Your task to perform on an android device: open app "Clock" Image 0: 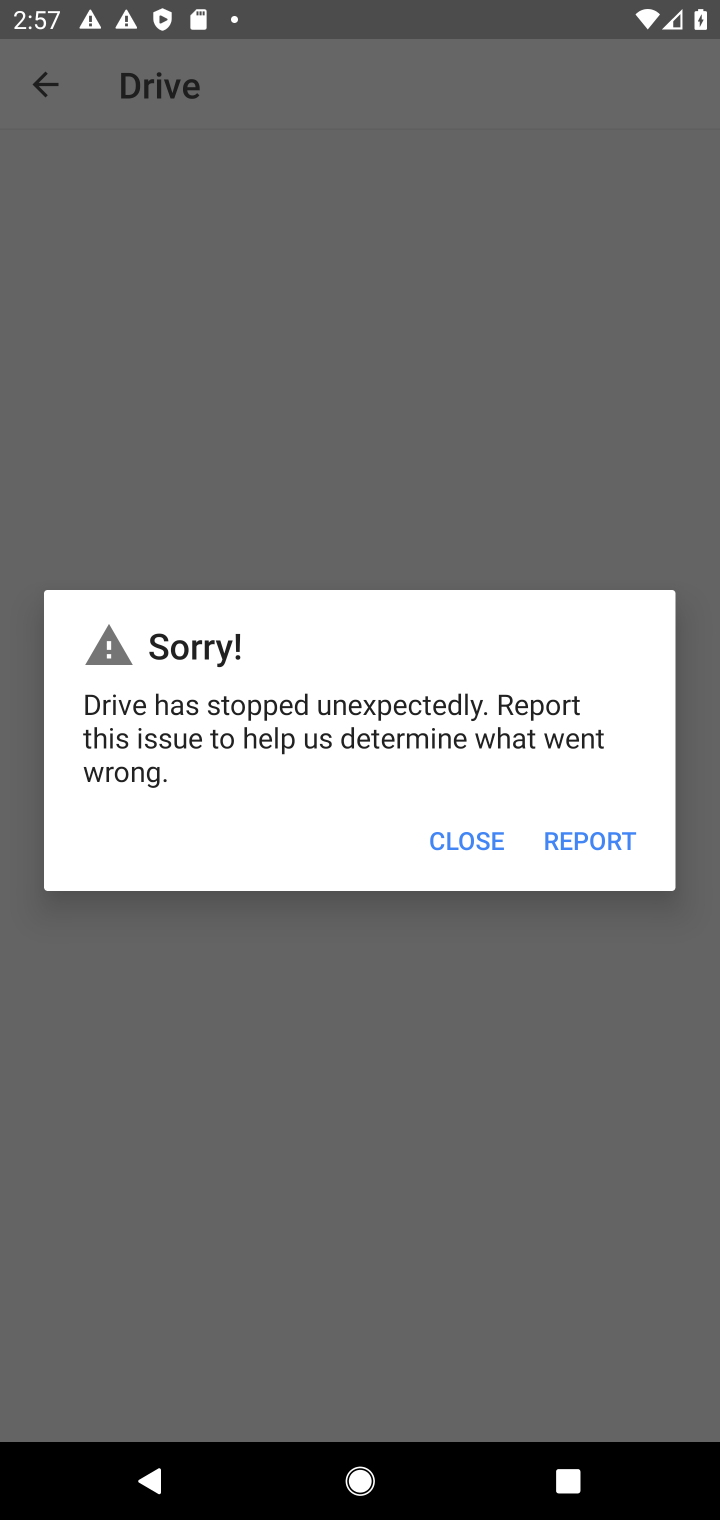
Step 0: press home button
Your task to perform on an android device: open app "Clock" Image 1: 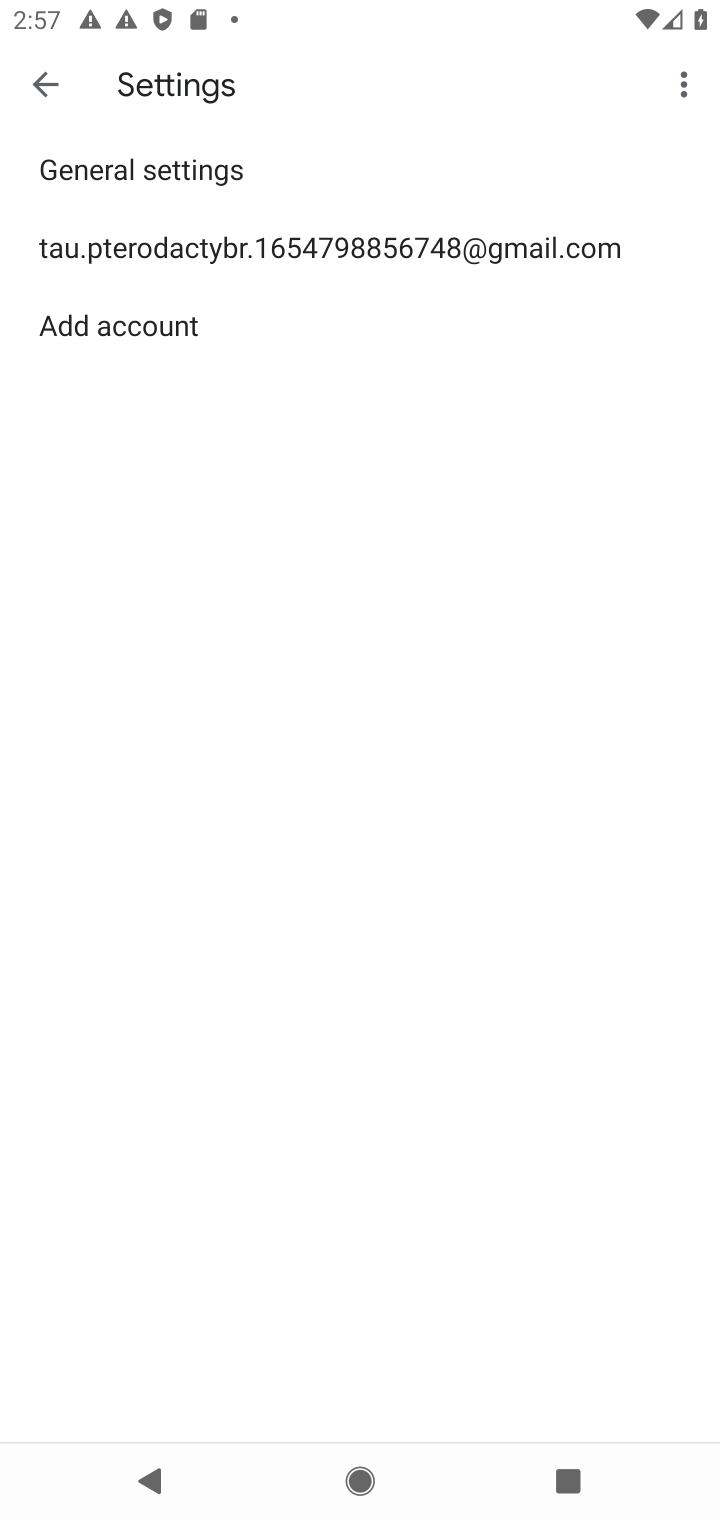
Step 1: press home button
Your task to perform on an android device: open app "Clock" Image 2: 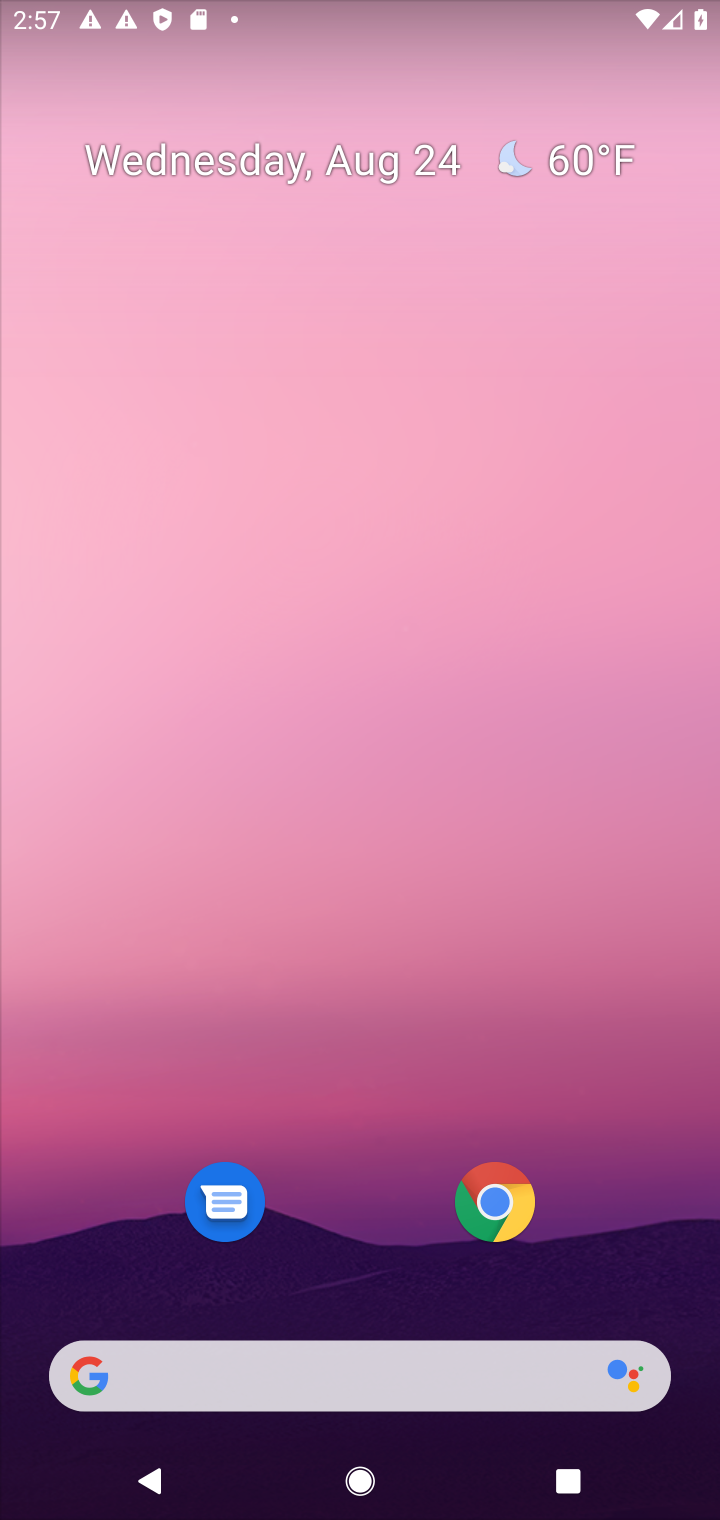
Step 2: press home button
Your task to perform on an android device: open app "Clock" Image 3: 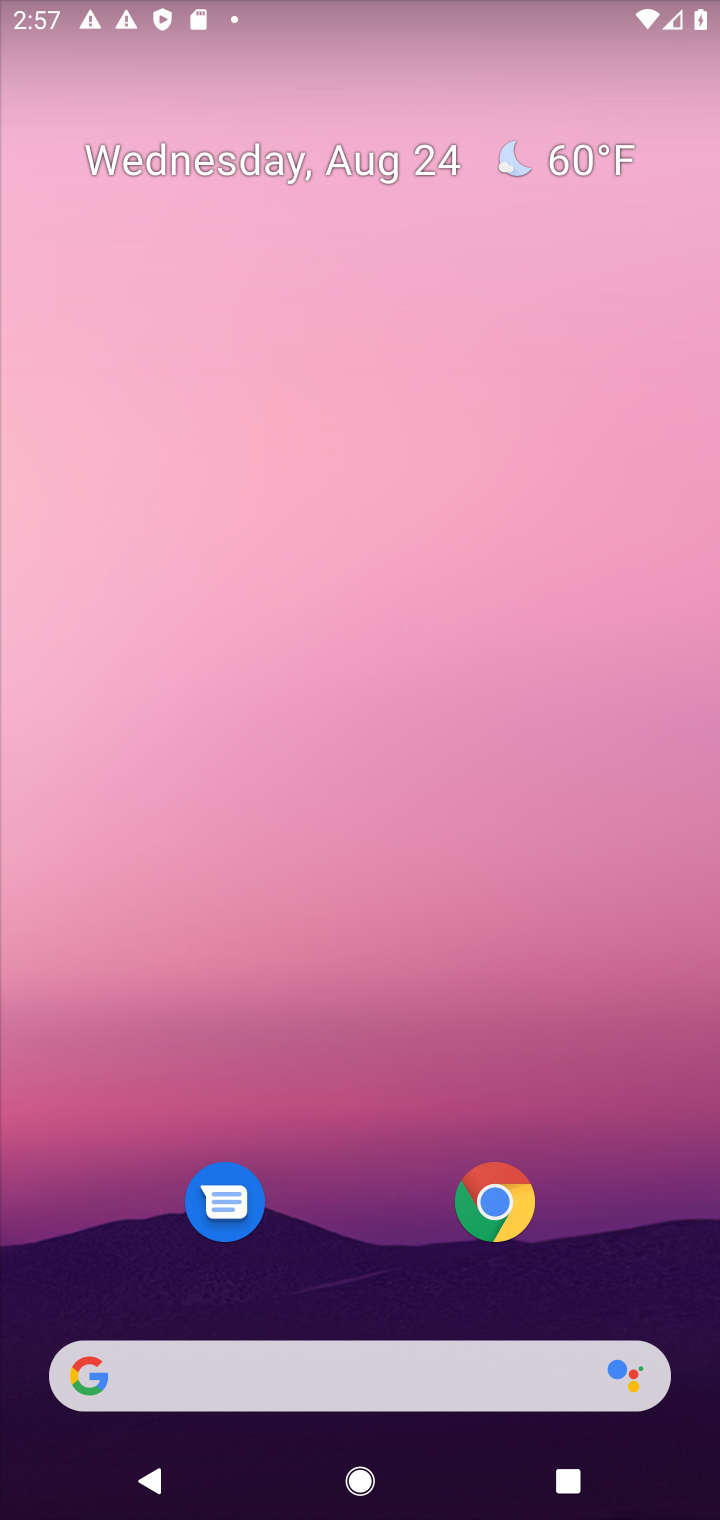
Step 3: drag from (342, 1376) to (542, 410)
Your task to perform on an android device: open app "Clock" Image 4: 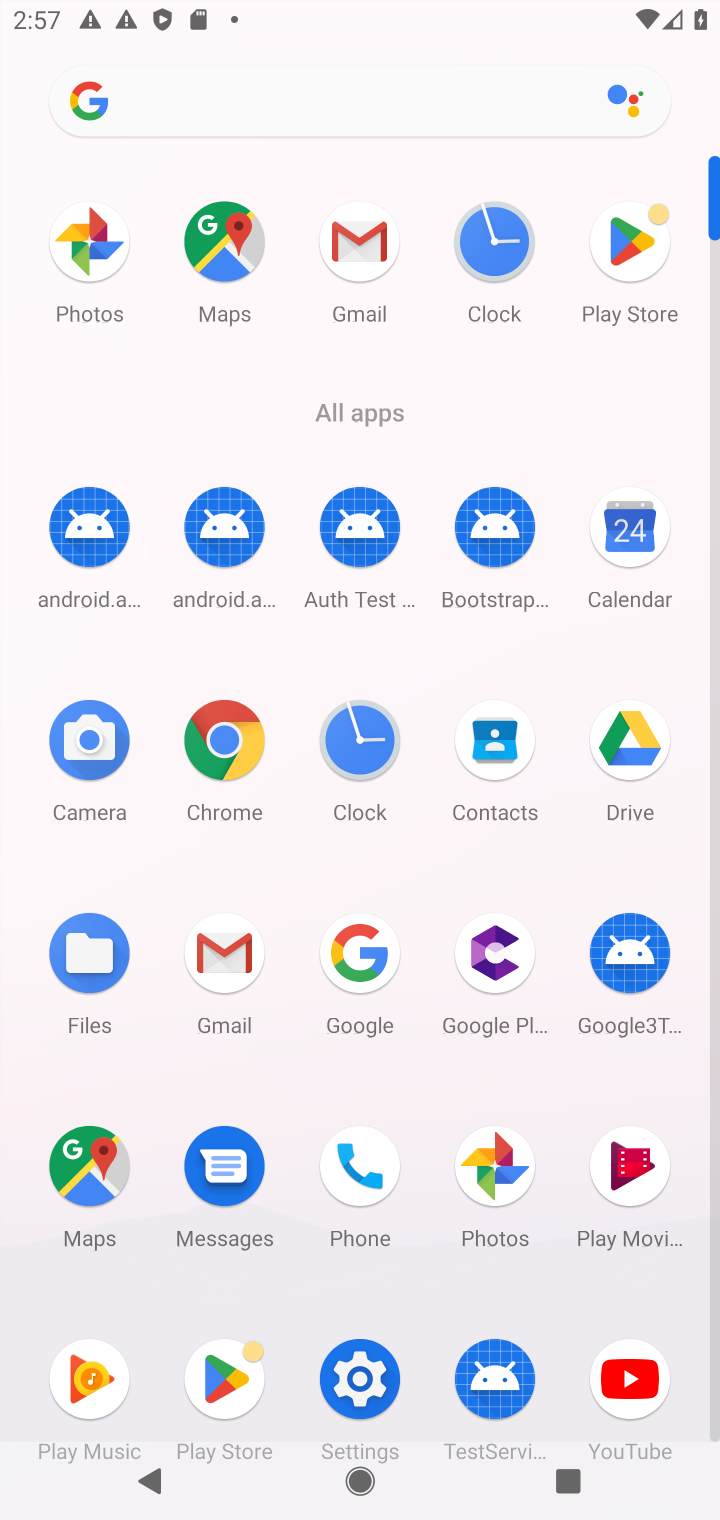
Step 4: click (223, 1371)
Your task to perform on an android device: open app "Clock" Image 5: 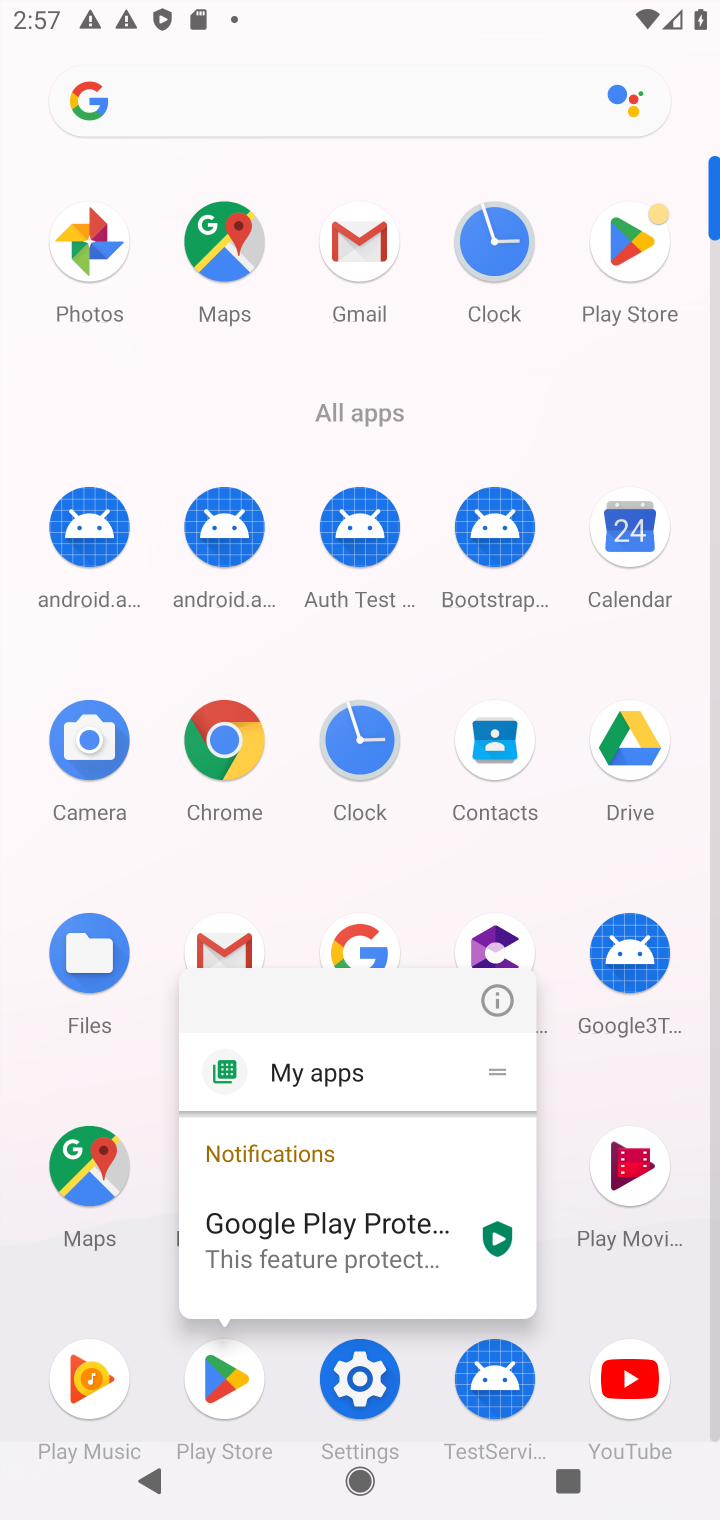
Step 5: click (223, 1371)
Your task to perform on an android device: open app "Clock" Image 6: 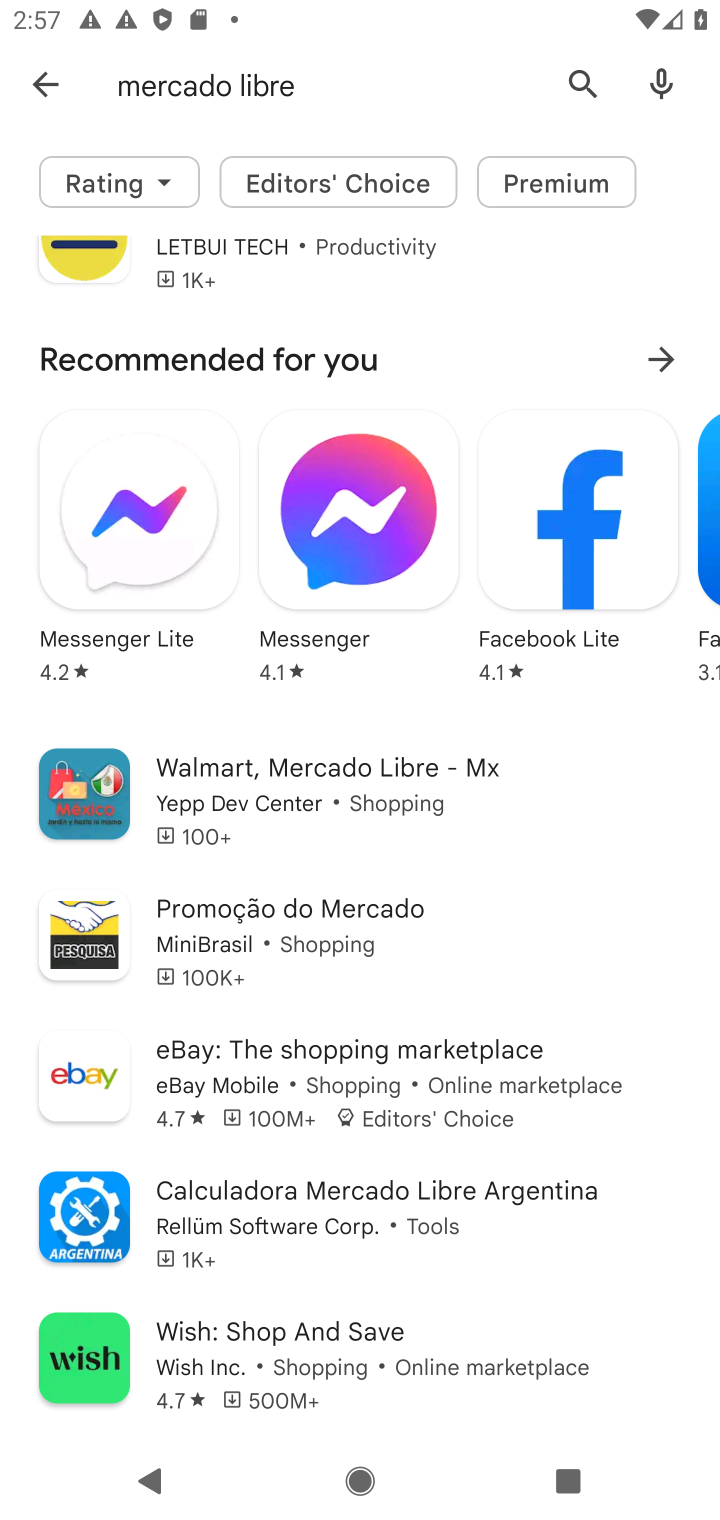
Step 6: click (581, 79)
Your task to perform on an android device: open app "Clock" Image 7: 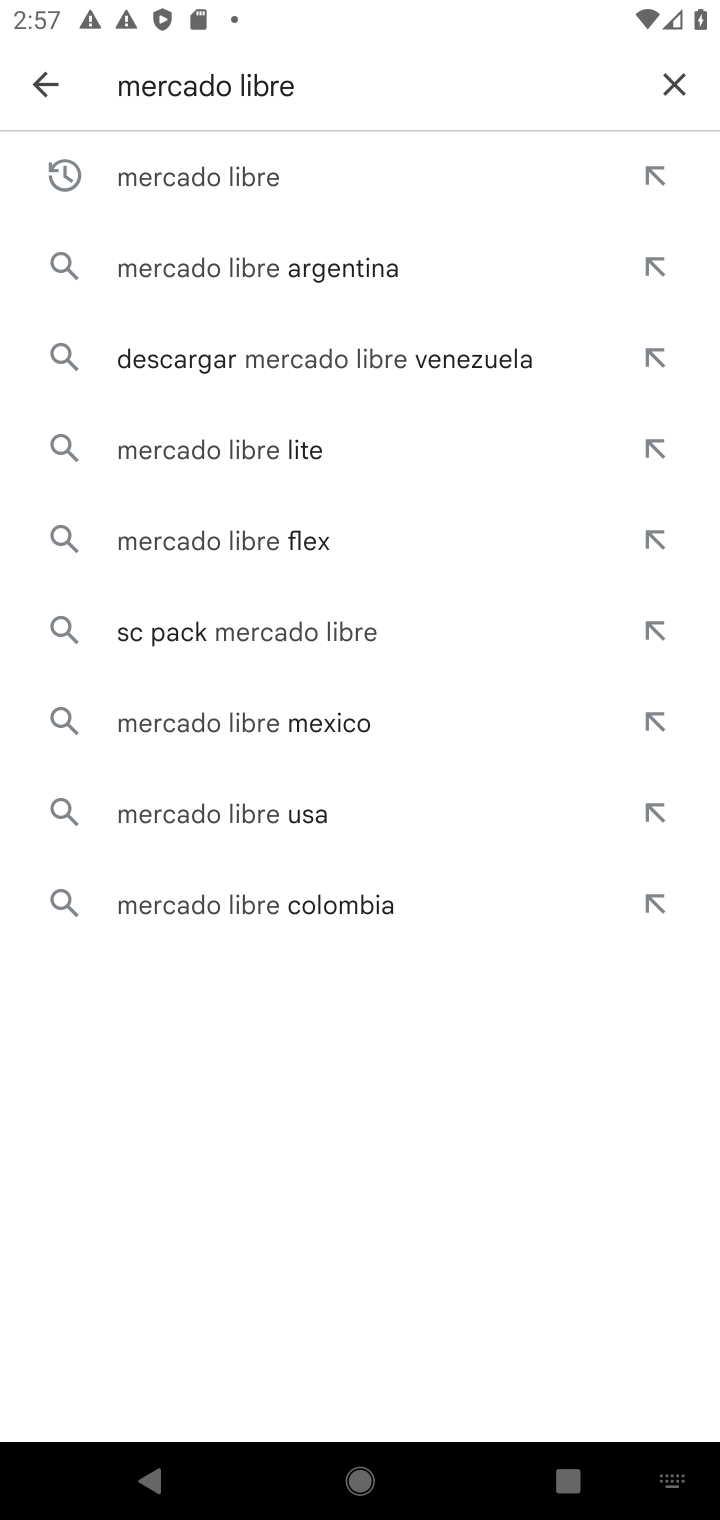
Step 7: click (669, 85)
Your task to perform on an android device: open app "Clock" Image 8: 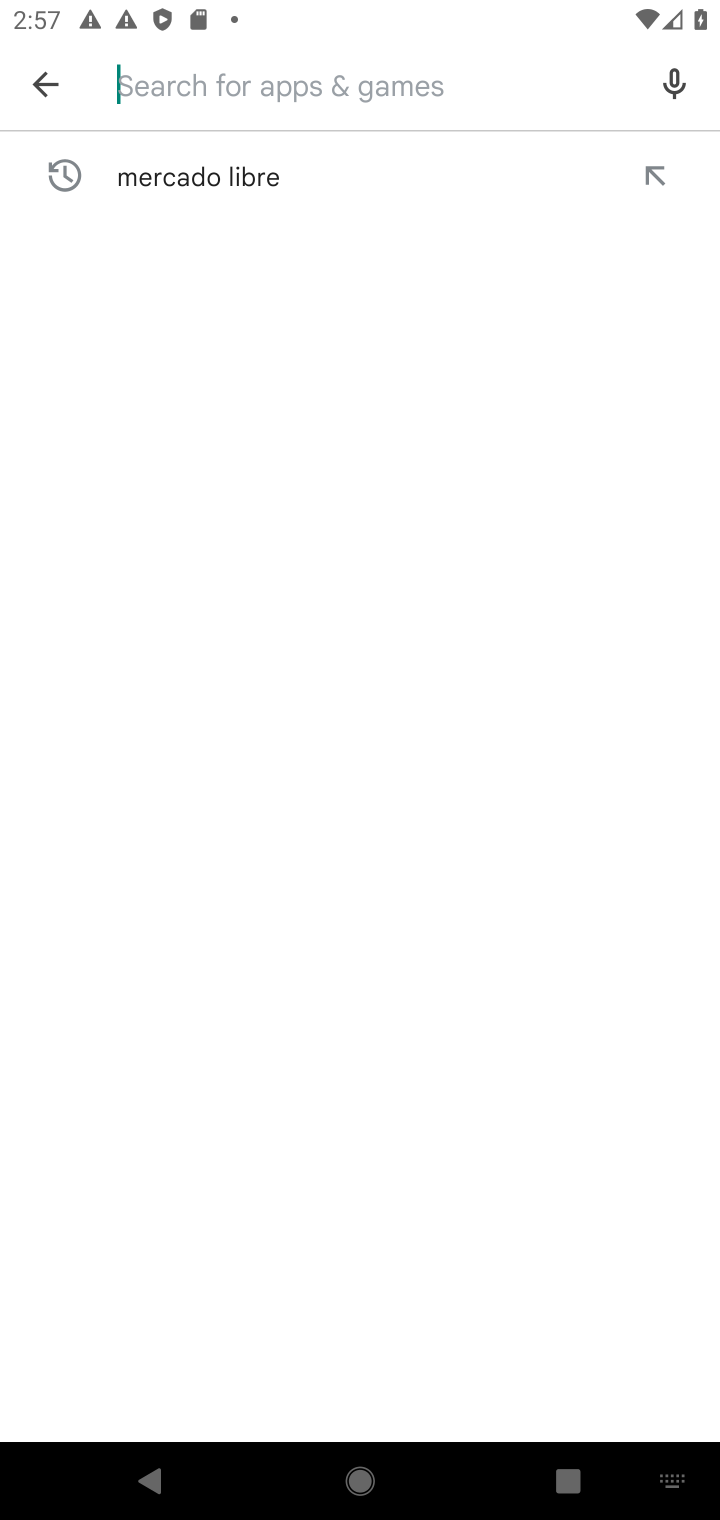
Step 8: type "Clock"
Your task to perform on an android device: open app "Clock" Image 9: 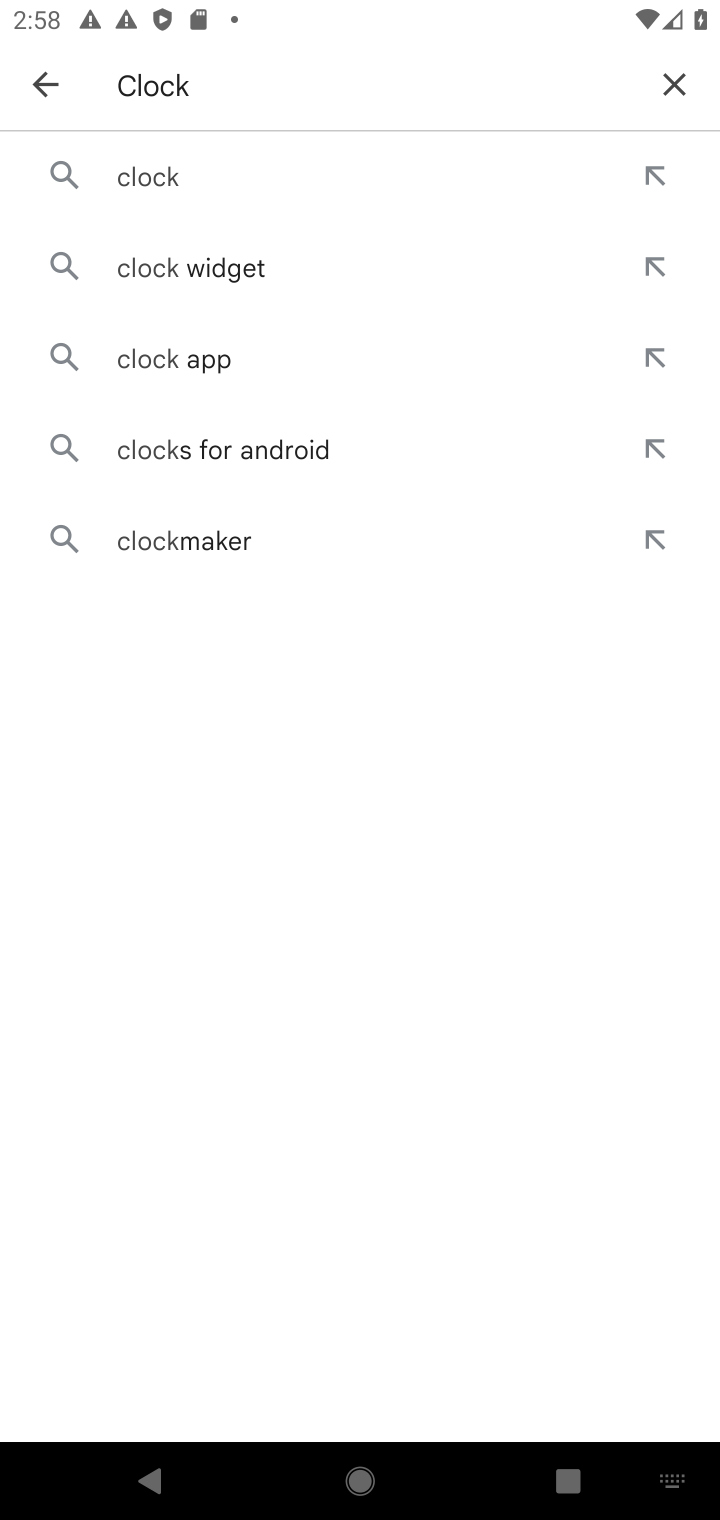
Step 9: click (140, 177)
Your task to perform on an android device: open app "Clock" Image 10: 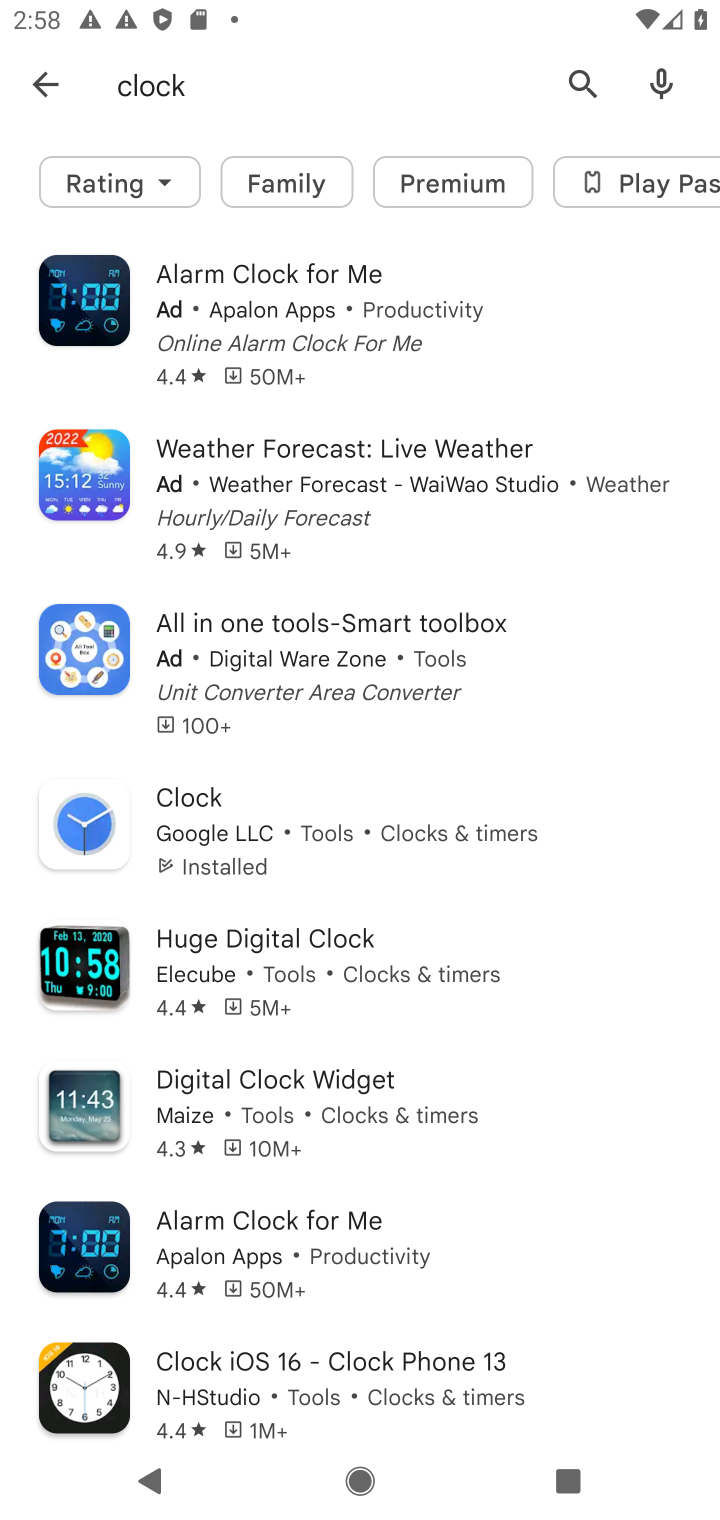
Step 10: click (248, 841)
Your task to perform on an android device: open app "Clock" Image 11: 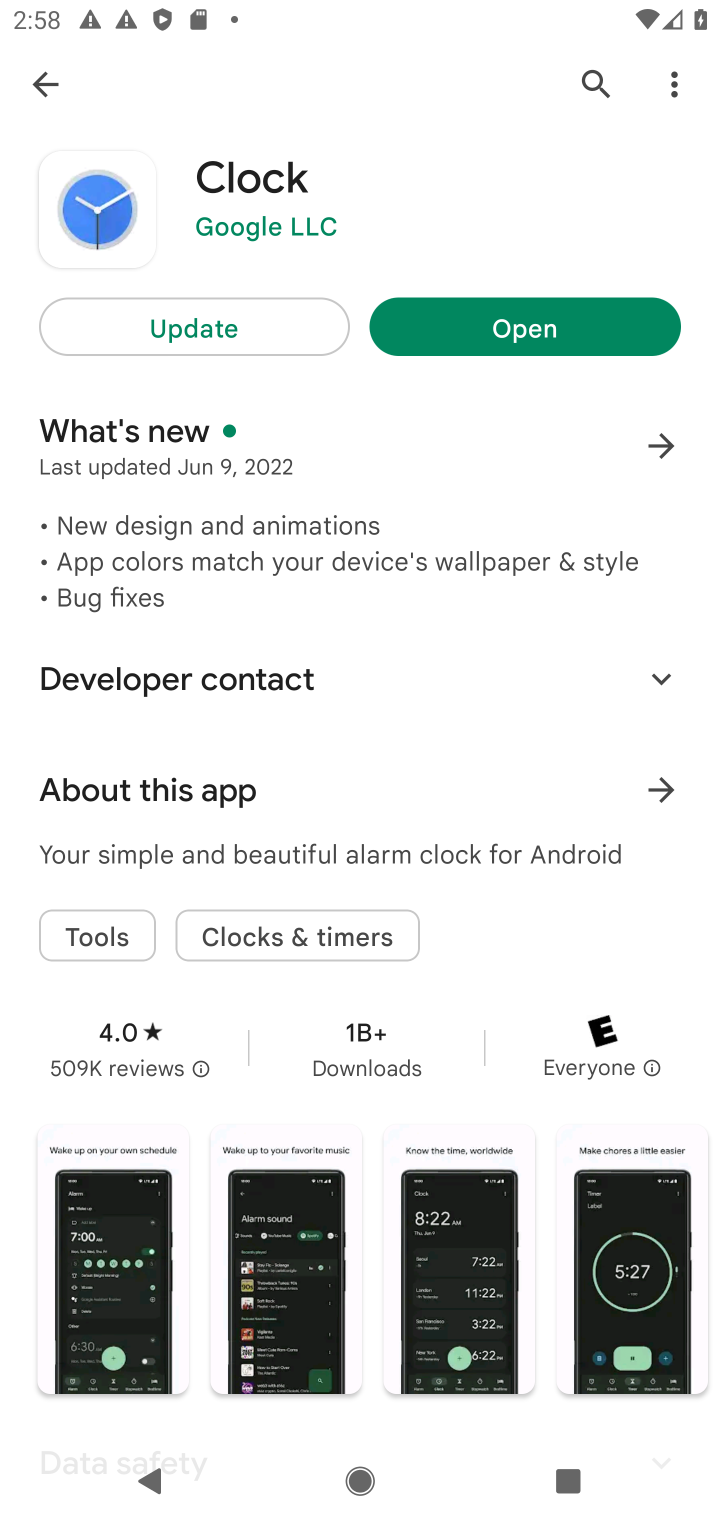
Step 11: click (531, 325)
Your task to perform on an android device: open app "Clock" Image 12: 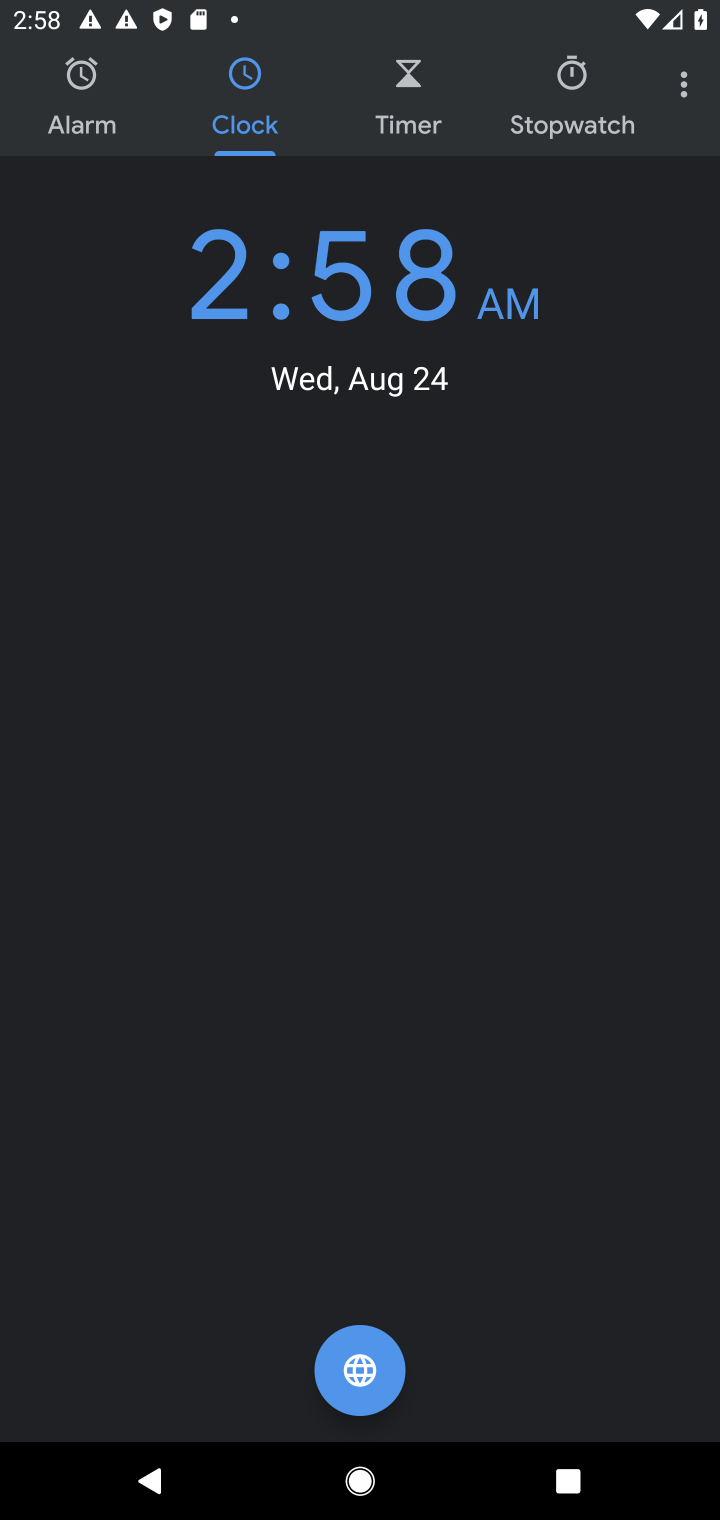
Step 12: task complete